Your task to perform on an android device: uninstall "Contacts" Image 0: 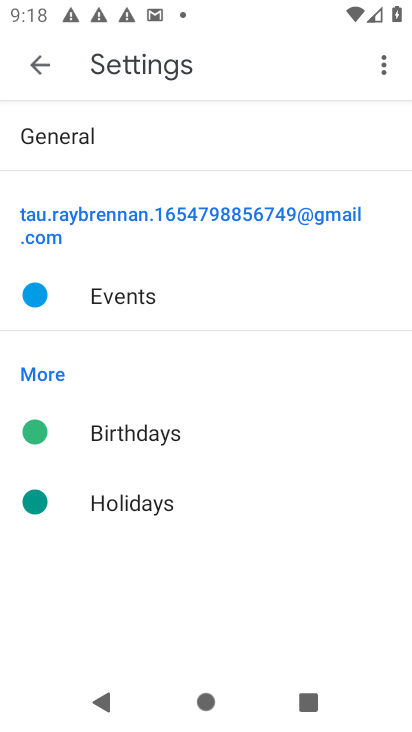
Step 0: press home button
Your task to perform on an android device: uninstall "Contacts" Image 1: 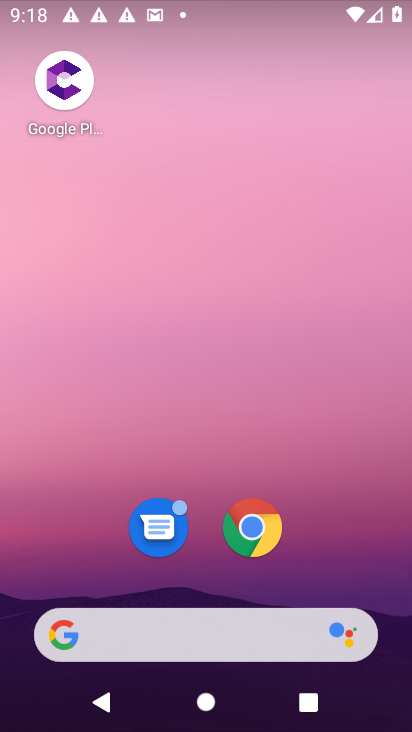
Step 1: drag from (204, 585) to (215, 447)
Your task to perform on an android device: uninstall "Contacts" Image 2: 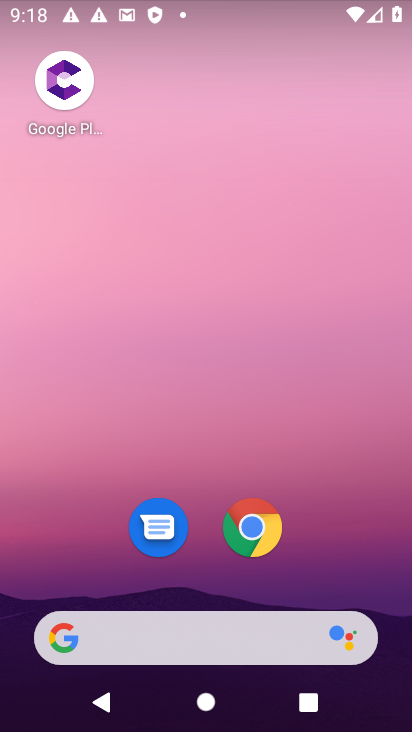
Step 2: drag from (203, 482) to (273, 17)
Your task to perform on an android device: uninstall "Contacts" Image 3: 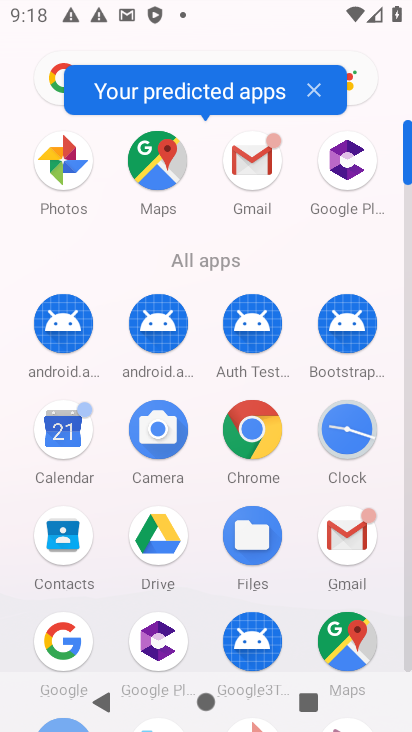
Step 3: drag from (197, 527) to (206, 239)
Your task to perform on an android device: uninstall "Contacts" Image 4: 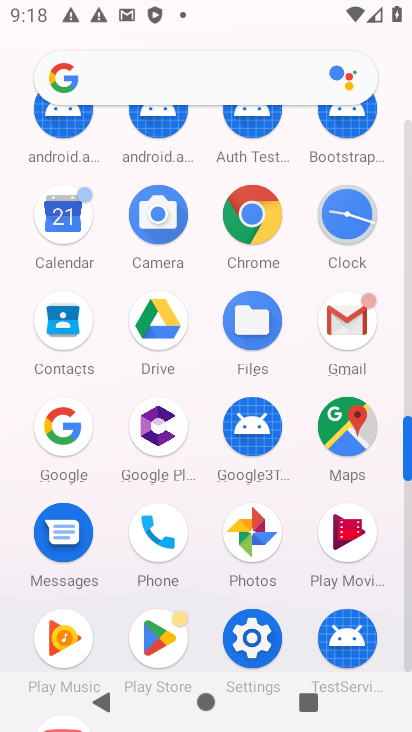
Step 4: click (174, 622)
Your task to perform on an android device: uninstall "Contacts" Image 5: 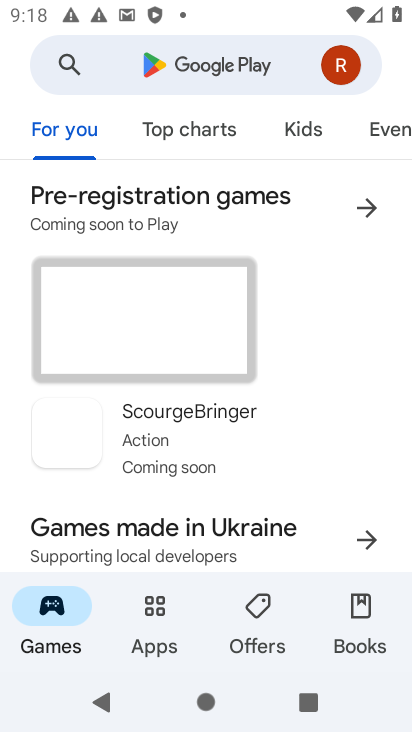
Step 5: click (197, 65)
Your task to perform on an android device: uninstall "Contacts" Image 6: 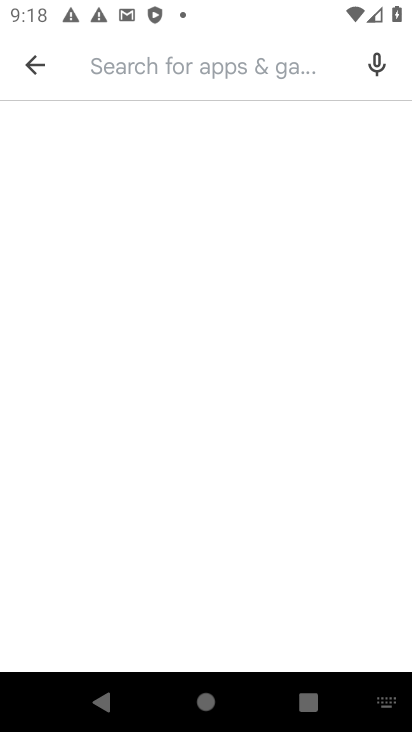
Step 6: type "contacts"
Your task to perform on an android device: uninstall "Contacts" Image 7: 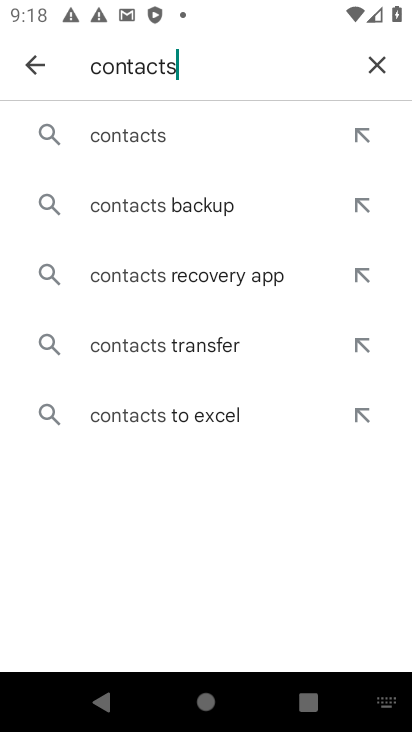
Step 7: click (153, 149)
Your task to perform on an android device: uninstall "Contacts" Image 8: 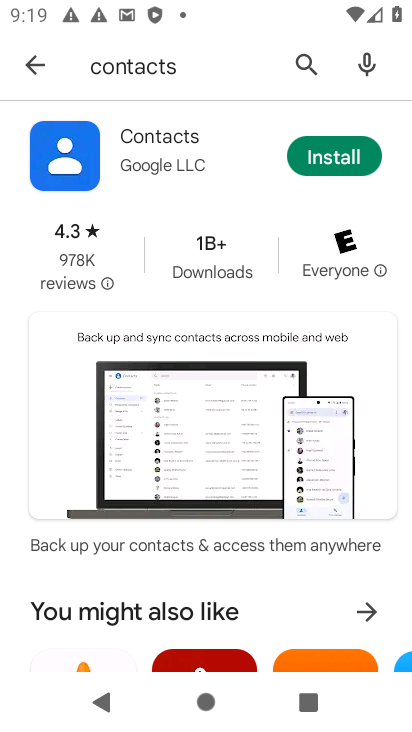
Step 8: click (85, 172)
Your task to perform on an android device: uninstall "Contacts" Image 9: 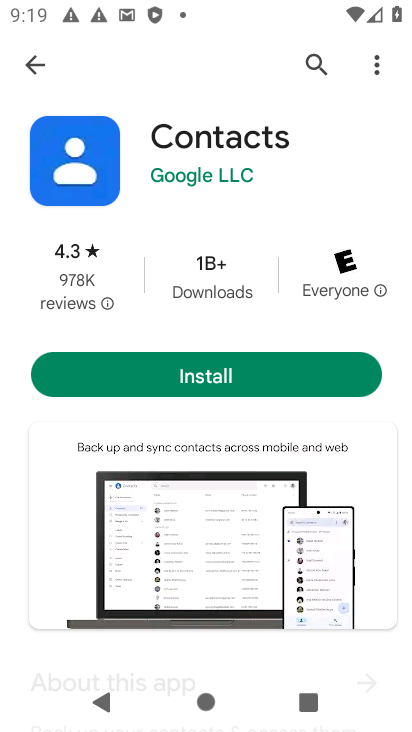
Step 9: task complete